Your task to perform on an android device: set the stopwatch Image 0: 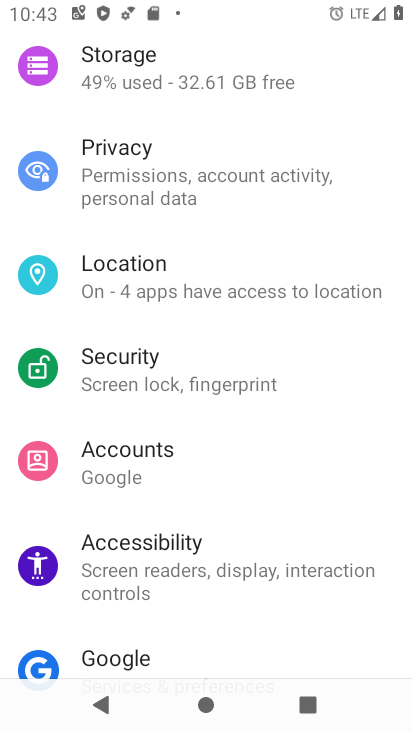
Step 0: press home button
Your task to perform on an android device: set the stopwatch Image 1: 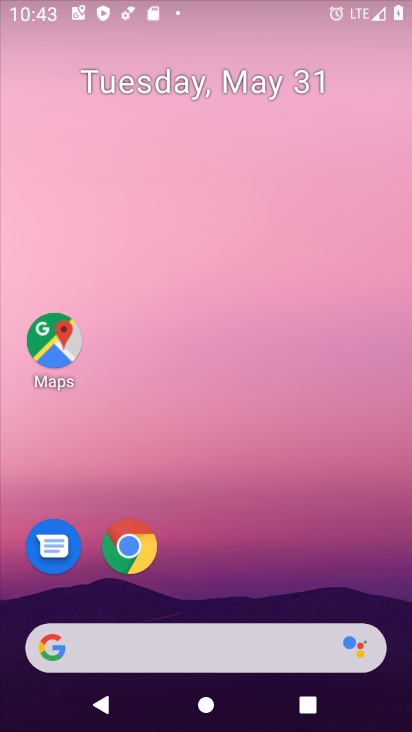
Step 1: drag from (269, 641) to (354, 13)
Your task to perform on an android device: set the stopwatch Image 2: 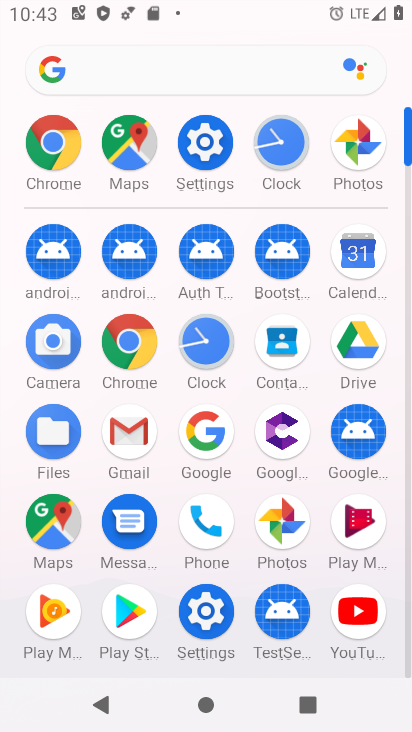
Step 2: click (211, 345)
Your task to perform on an android device: set the stopwatch Image 3: 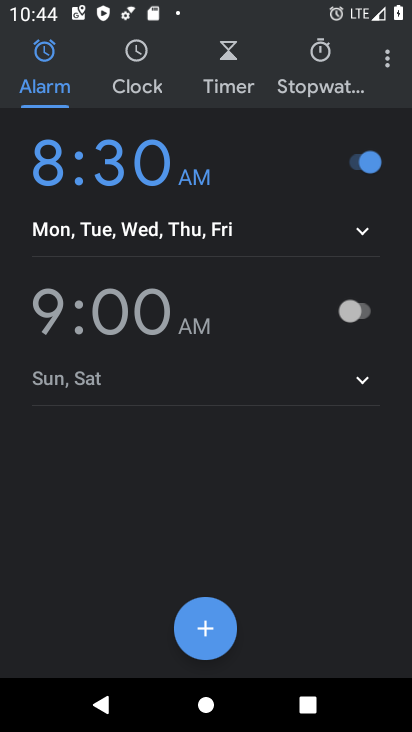
Step 3: click (312, 78)
Your task to perform on an android device: set the stopwatch Image 4: 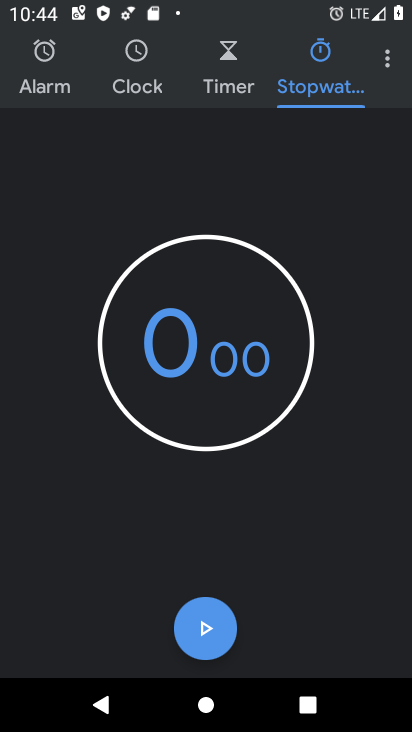
Step 4: click (219, 618)
Your task to perform on an android device: set the stopwatch Image 5: 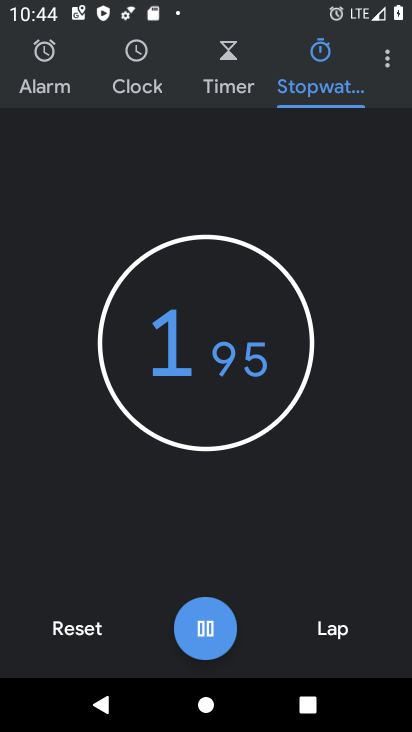
Step 5: task complete